Your task to perform on an android device: Open battery settings Image 0: 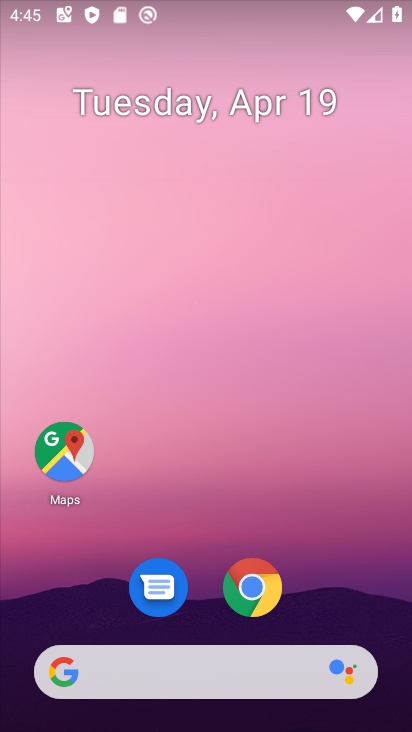
Step 0: drag from (358, 574) to (227, 76)
Your task to perform on an android device: Open battery settings Image 1: 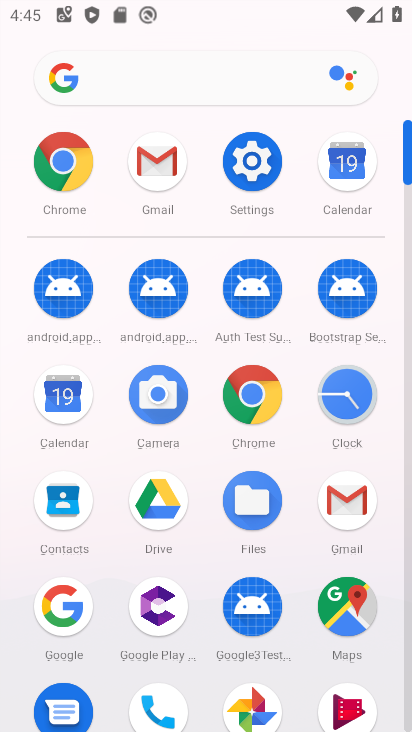
Step 1: drag from (5, 557) to (0, 282)
Your task to perform on an android device: Open battery settings Image 2: 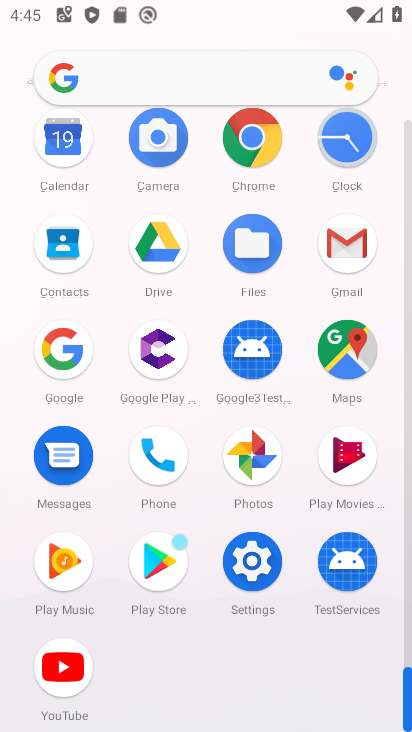
Step 2: drag from (13, 271) to (11, 504)
Your task to perform on an android device: Open battery settings Image 3: 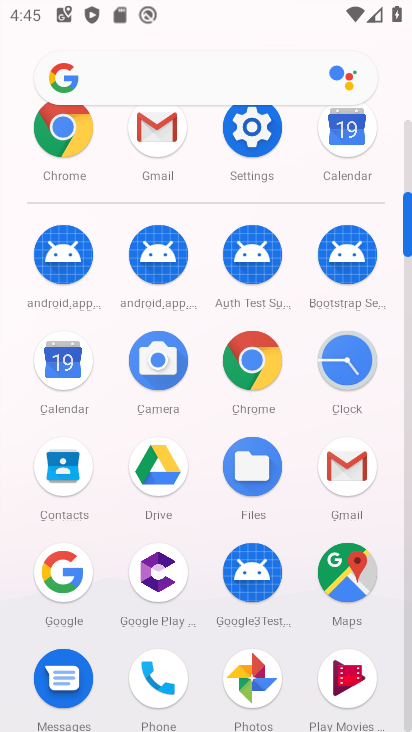
Step 3: click (251, 128)
Your task to perform on an android device: Open battery settings Image 4: 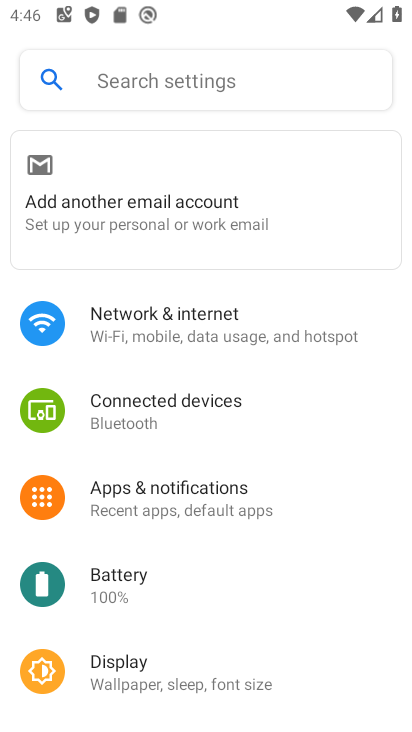
Step 4: drag from (260, 599) to (269, 368)
Your task to perform on an android device: Open battery settings Image 5: 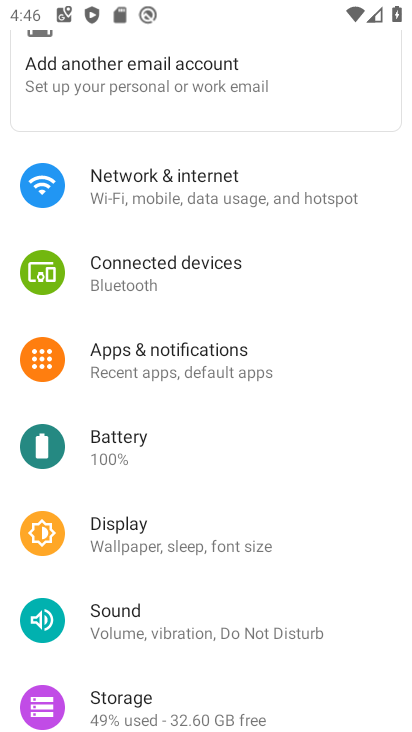
Step 5: click (118, 452)
Your task to perform on an android device: Open battery settings Image 6: 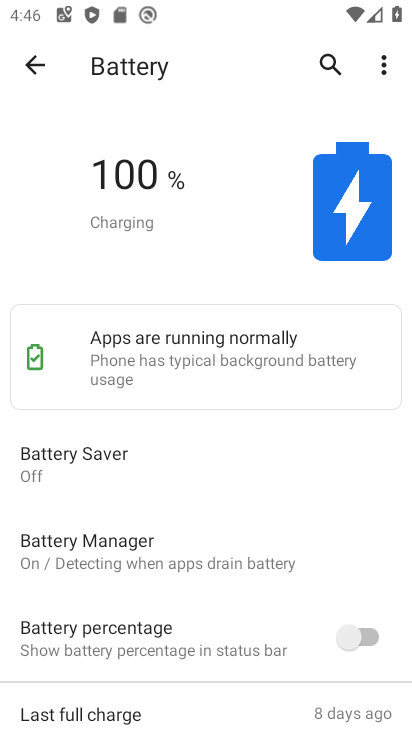
Step 6: task complete